Your task to perform on an android device: Open display settings Image 0: 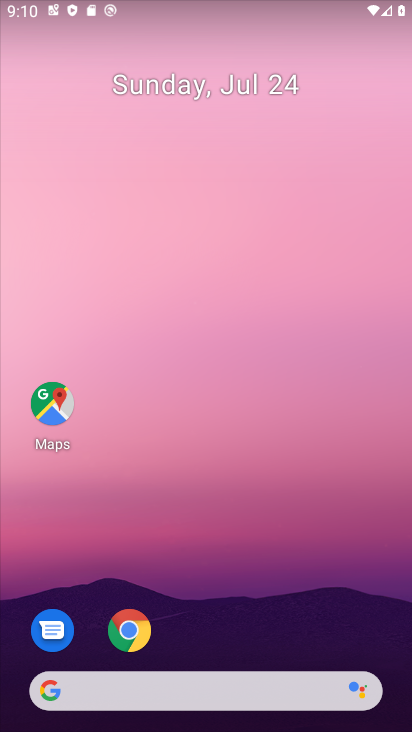
Step 0: drag from (206, 652) to (229, 84)
Your task to perform on an android device: Open display settings Image 1: 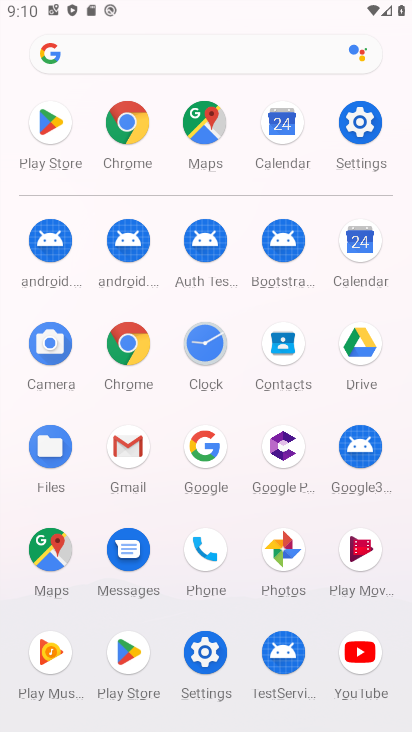
Step 1: click (351, 143)
Your task to perform on an android device: Open display settings Image 2: 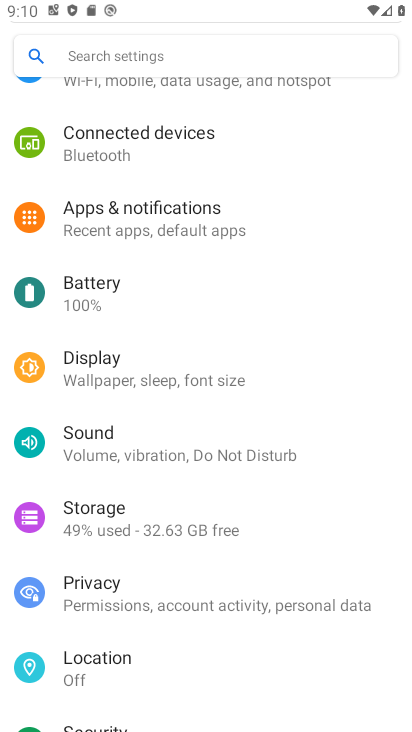
Step 2: click (157, 379)
Your task to perform on an android device: Open display settings Image 3: 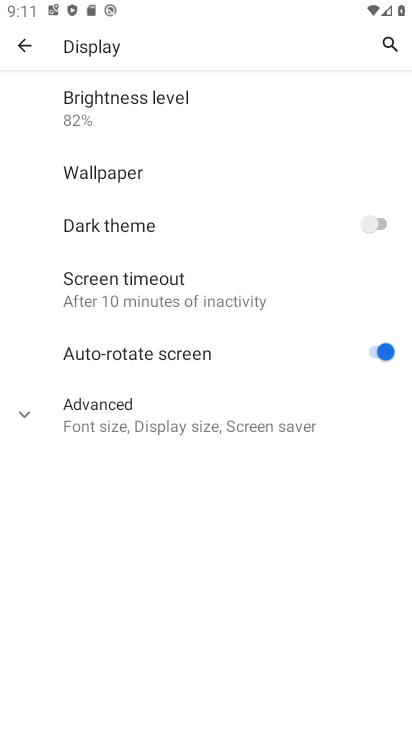
Step 3: task complete